Your task to perform on an android device: Go to accessibility settings Image 0: 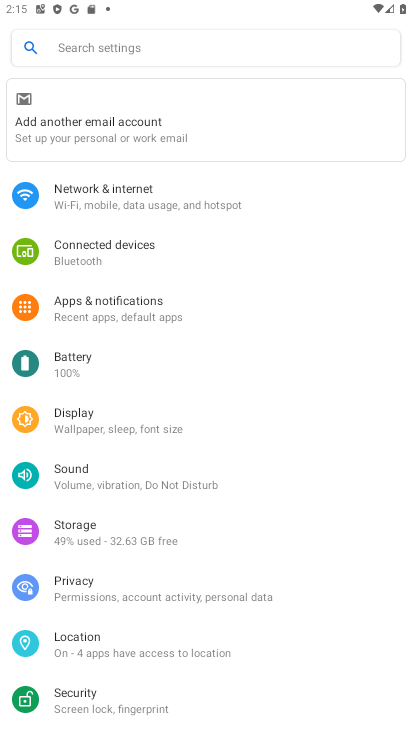
Step 0: press home button
Your task to perform on an android device: Go to accessibility settings Image 1: 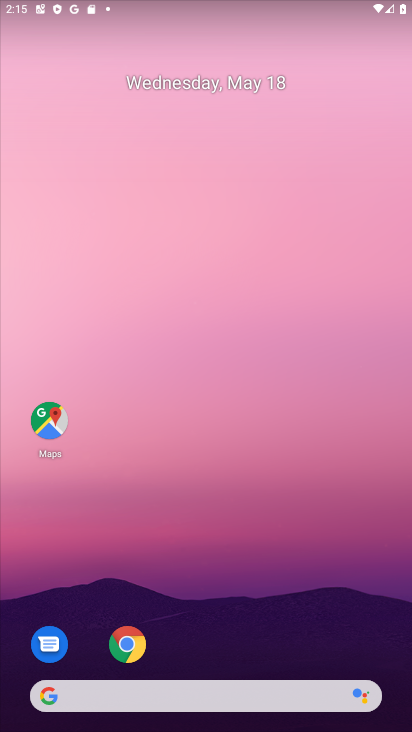
Step 1: drag from (221, 634) to (211, 157)
Your task to perform on an android device: Go to accessibility settings Image 2: 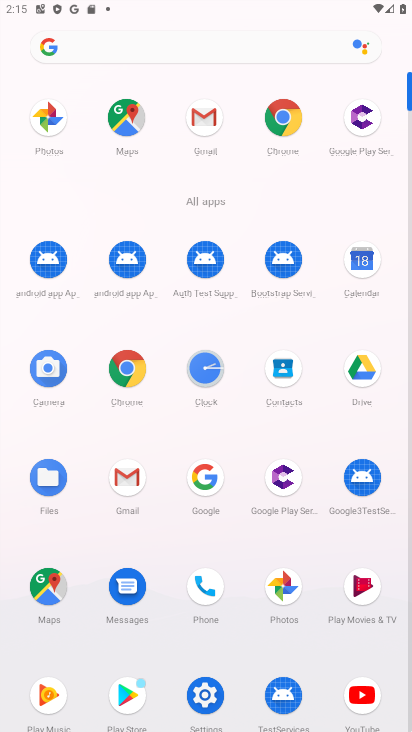
Step 2: click (206, 693)
Your task to perform on an android device: Go to accessibility settings Image 3: 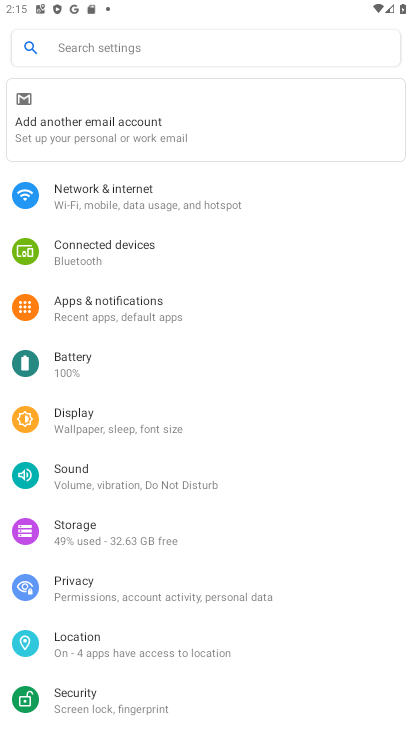
Step 3: drag from (113, 563) to (137, 466)
Your task to perform on an android device: Go to accessibility settings Image 4: 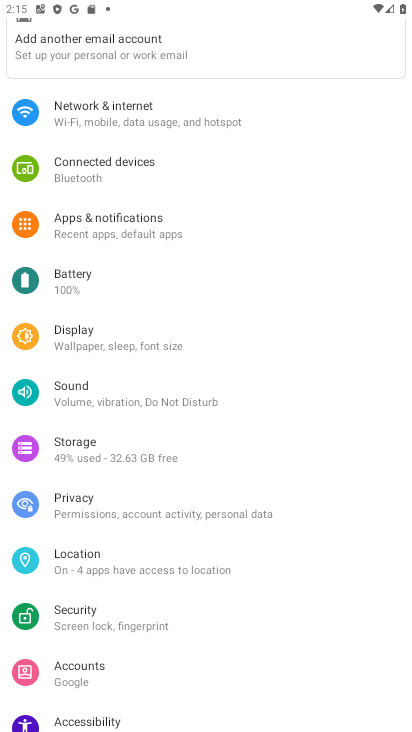
Step 4: drag from (94, 638) to (125, 545)
Your task to perform on an android device: Go to accessibility settings Image 5: 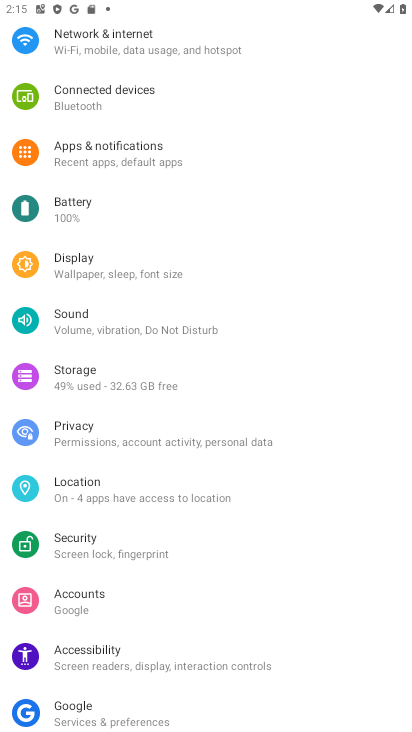
Step 5: click (80, 644)
Your task to perform on an android device: Go to accessibility settings Image 6: 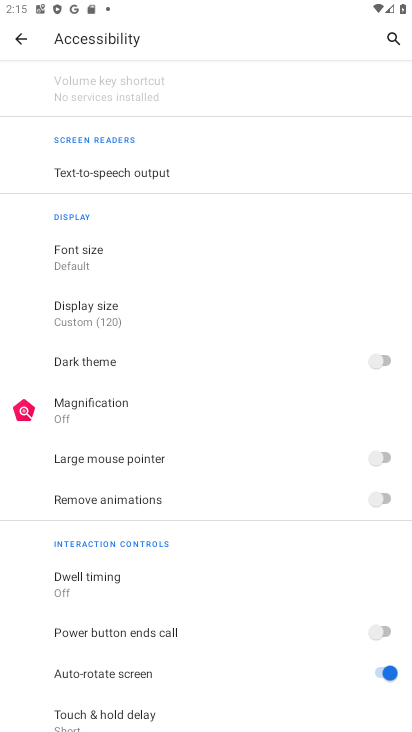
Step 6: task complete